Your task to perform on an android device: Go to CNN.com Image 0: 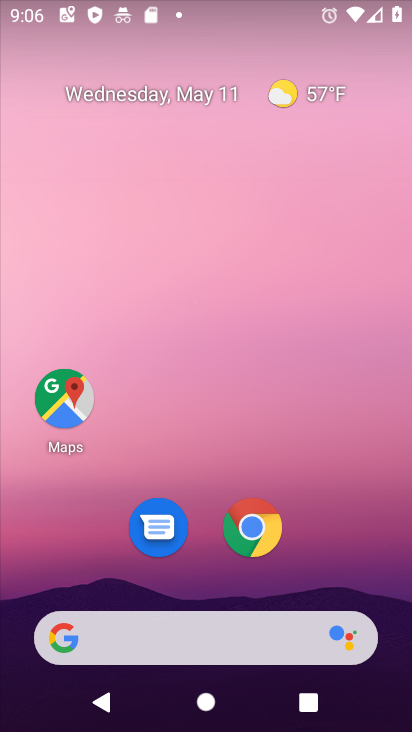
Step 0: click (251, 538)
Your task to perform on an android device: Go to CNN.com Image 1: 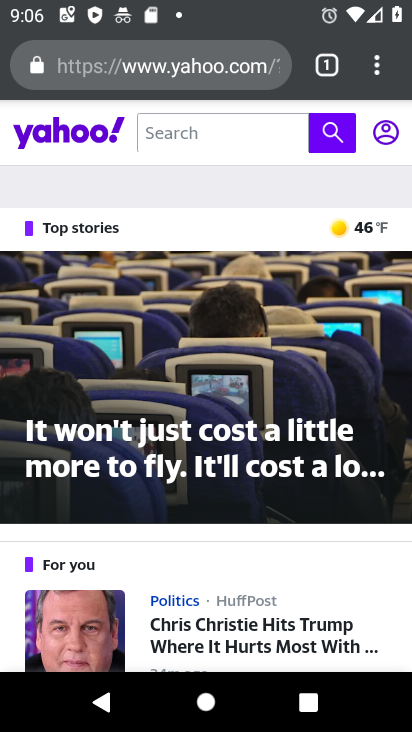
Step 1: click (110, 73)
Your task to perform on an android device: Go to CNN.com Image 2: 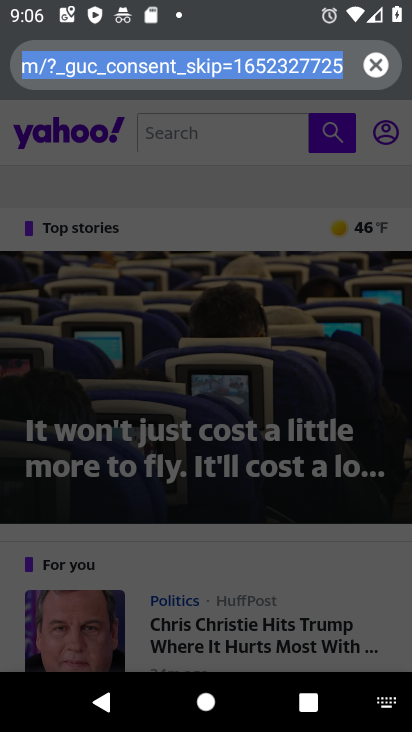
Step 2: click (374, 65)
Your task to perform on an android device: Go to CNN.com Image 3: 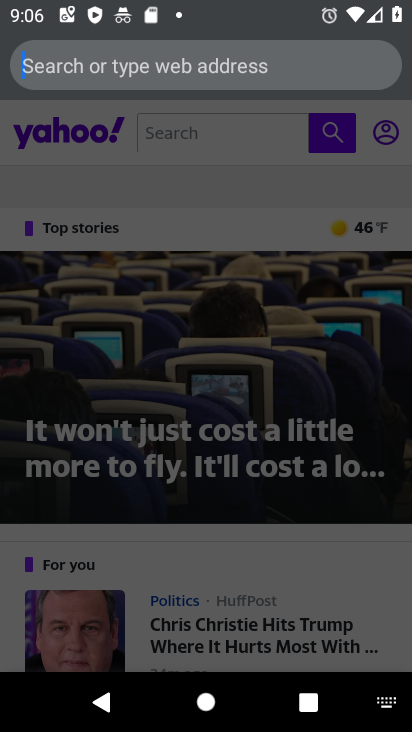
Step 3: type "cnn.com"
Your task to perform on an android device: Go to CNN.com Image 4: 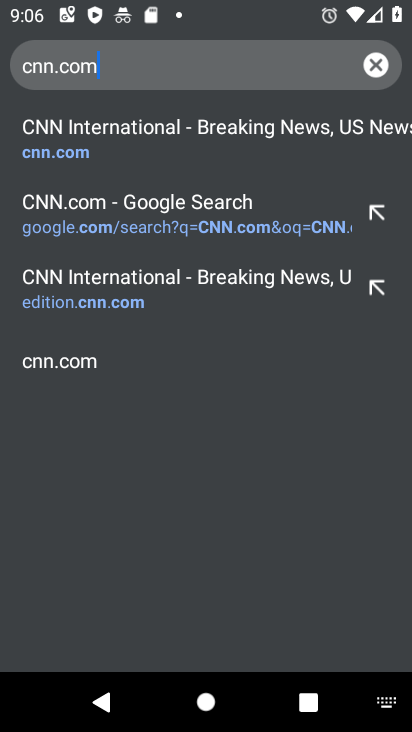
Step 4: click (45, 206)
Your task to perform on an android device: Go to CNN.com Image 5: 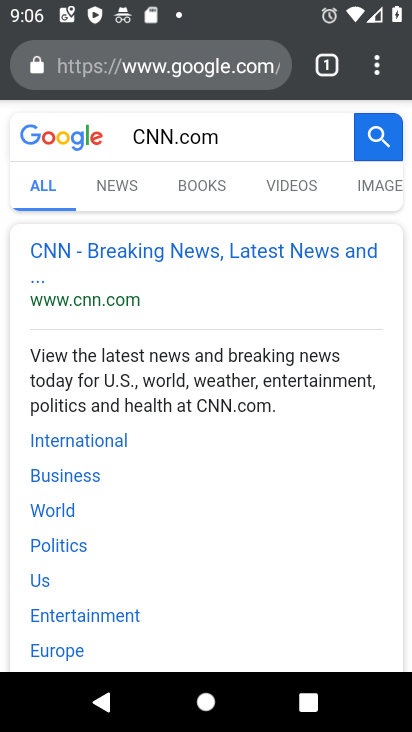
Step 5: click (69, 294)
Your task to perform on an android device: Go to CNN.com Image 6: 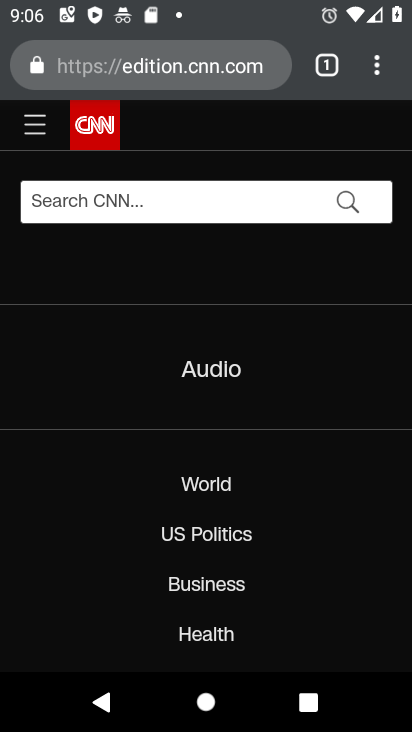
Step 6: task complete